Your task to perform on an android device: delete the emails in spam in the gmail app Image 0: 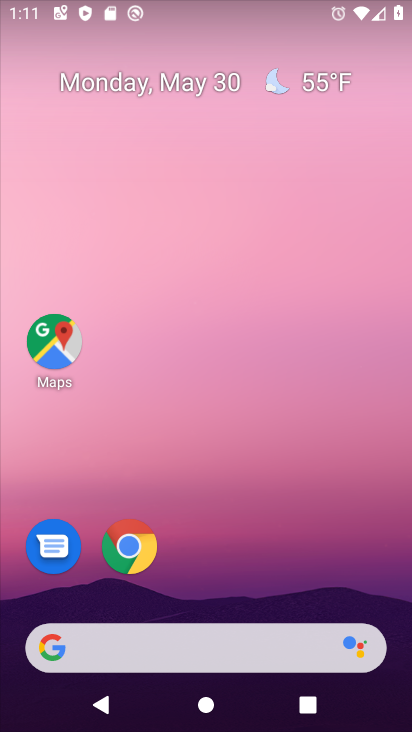
Step 0: press home button
Your task to perform on an android device: delete the emails in spam in the gmail app Image 1: 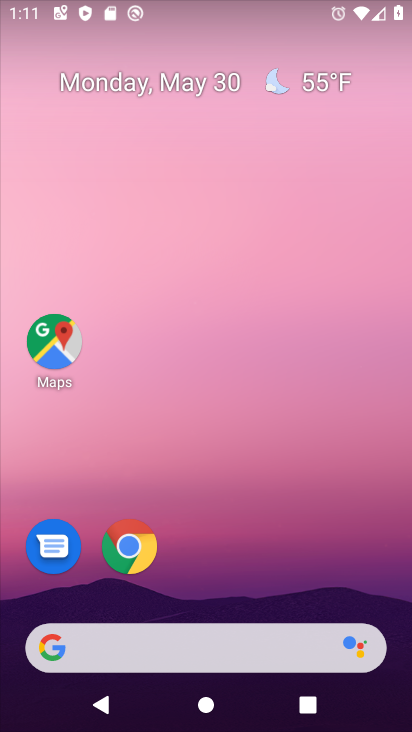
Step 1: drag from (264, 604) to (266, 49)
Your task to perform on an android device: delete the emails in spam in the gmail app Image 2: 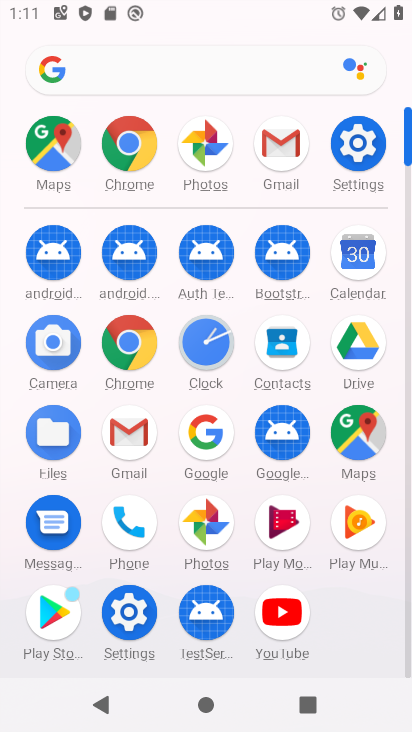
Step 2: click (281, 147)
Your task to perform on an android device: delete the emails in spam in the gmail app Image 3: 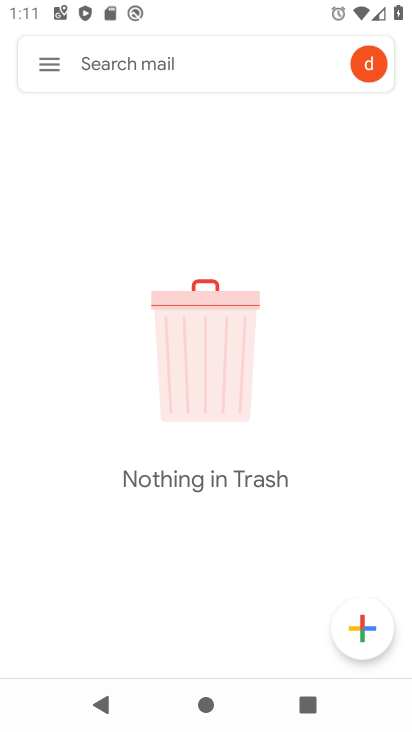
Step 3: click (51, 61)
Your task to perform on an android device: delete the emails in spam in the gmail app Image 4: 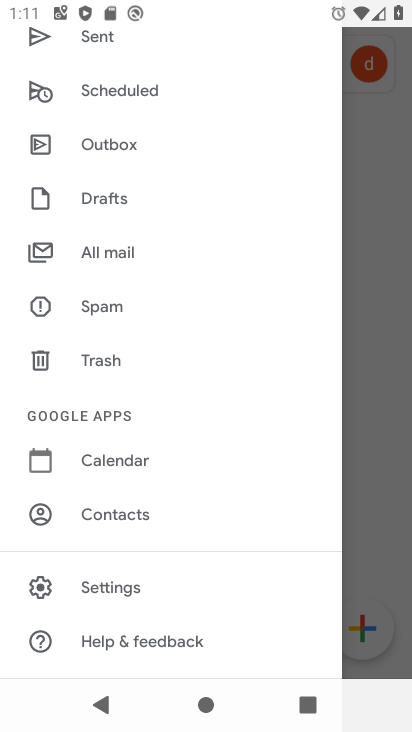
Step 4: click (106, 306)
Your task to perform on an android device: delete the emails in spam in the gmail app Image 5: 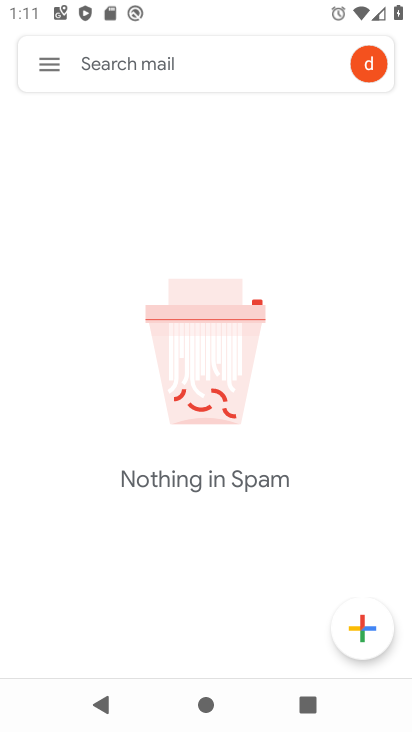
Step 5: task complete